Your task to perform on an android device: change the clock style Image 0: 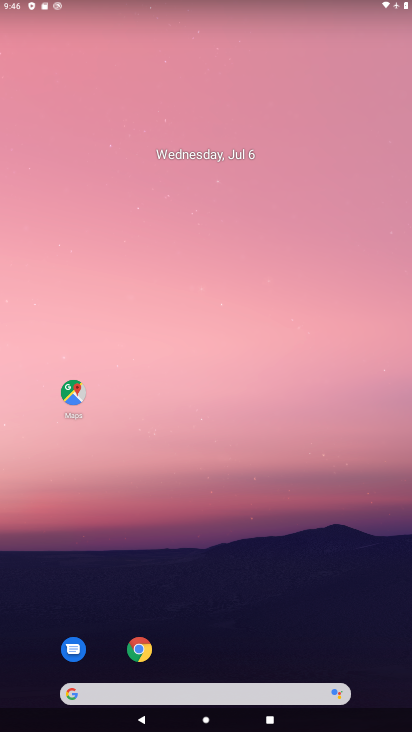
Step 0: drag from (357, 582) to (236, 100)
Your task to perform on an android device: change the clock style Image 1: 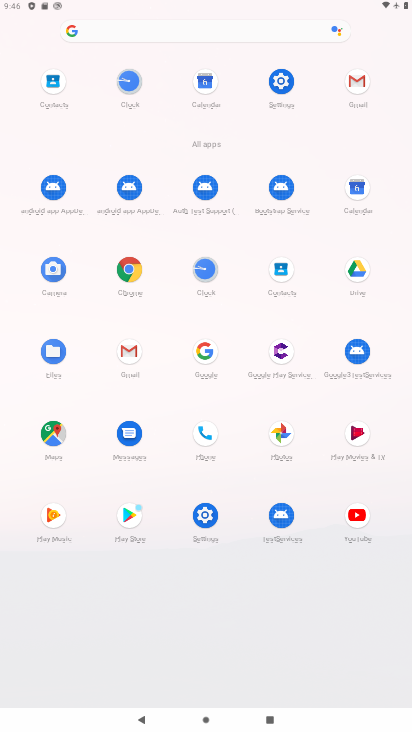
Step 1: click (195, 279)
Your task to perform on an android device: change the clock style Image 2: 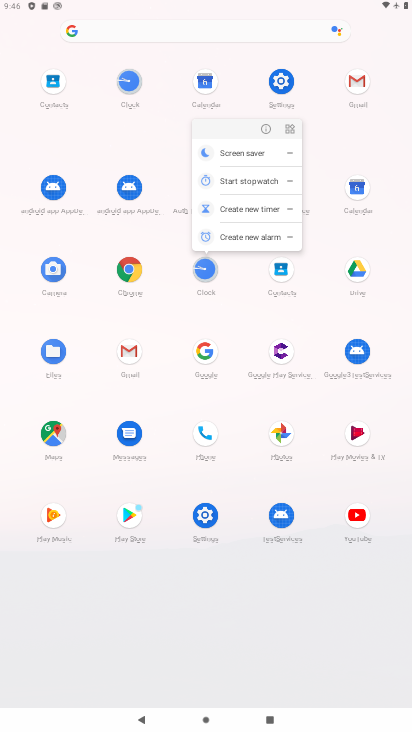
Step 2: click (197, 268)
Your task to perform on an android device: change the clock style Image 3: 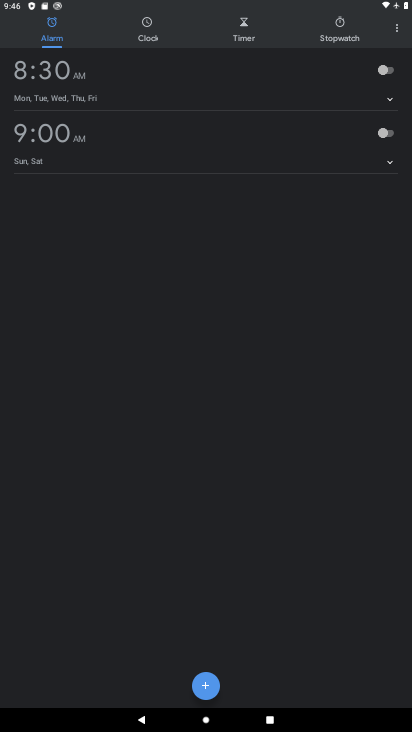
Step 3: click (396, 26)
Your task to perform on an android device: change the clock style Image 4: 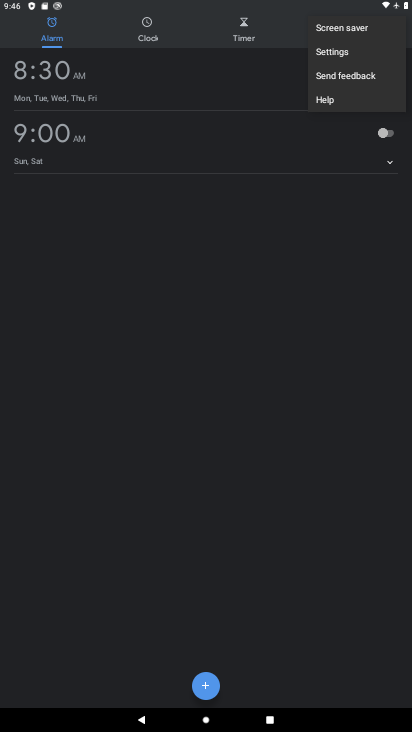
Step 4: click (338, 50)
Your task to perform on an android device: change the clock style Image 5: 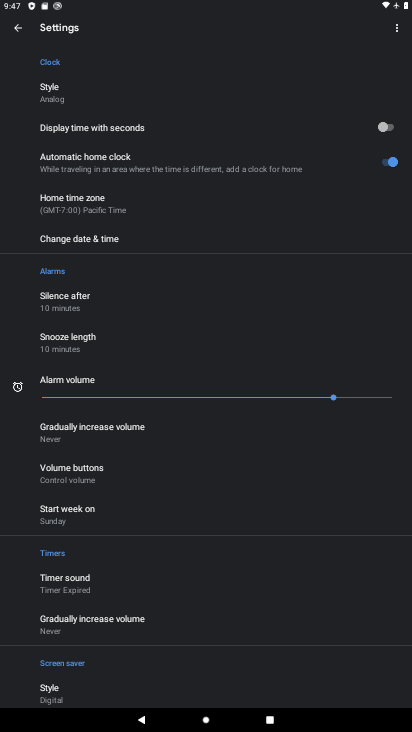
Step 5: click (55, 94)
Your task to perform on an android device: change the clock style Image 6: 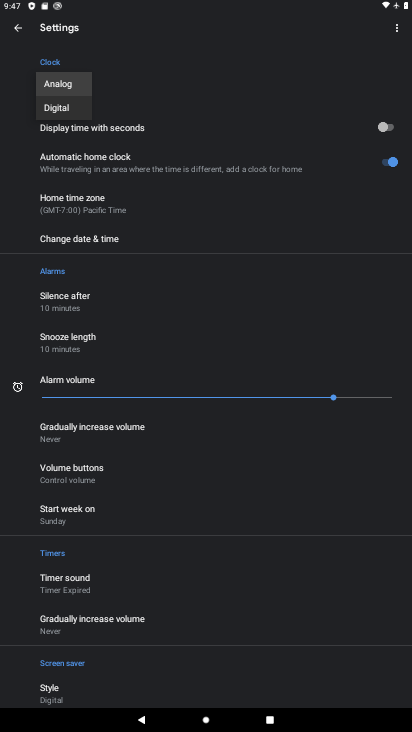
Step 6: click (47, 107)
Your task to perform on an android device: change the clock style Image 7: 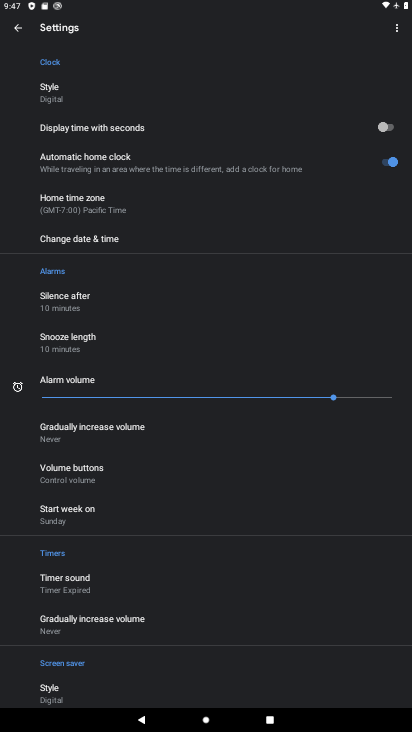
Step 7: task complete